Your task to perform on an android device: set the timer Image 0: 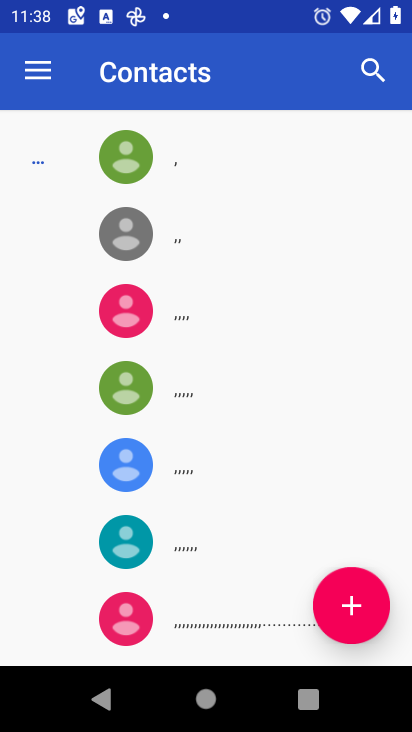
Step 0: press home button
Your task to perform on an android device: set the timer Image 1: 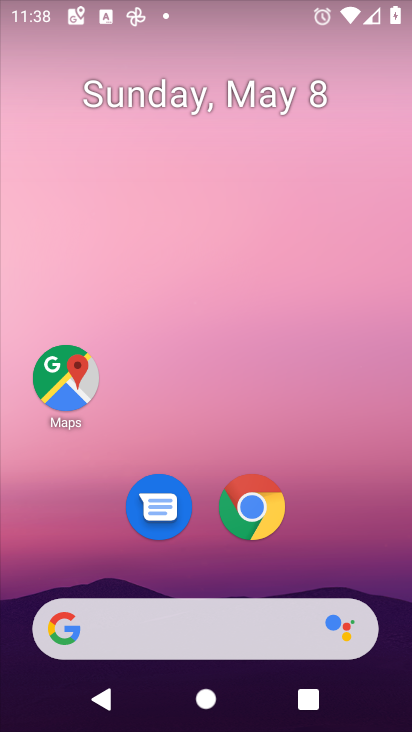
Step 1: drag from (257, 675) to (356, 4)
Your task to perform on an android device: set the timer Image 2: 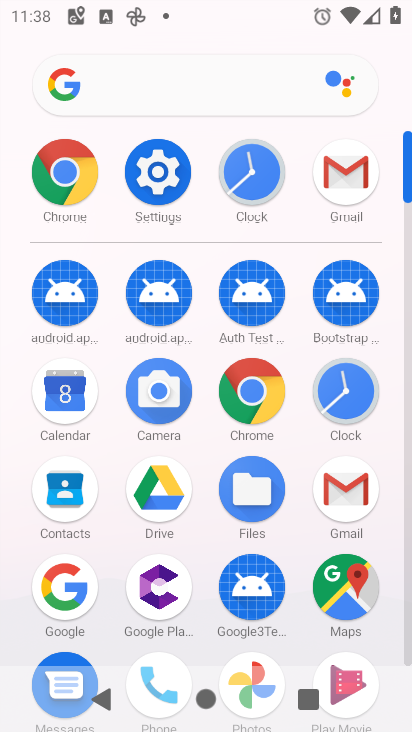
Step 2: click (351, 391)
Your task to perform on an android device: set the timer Image 3: 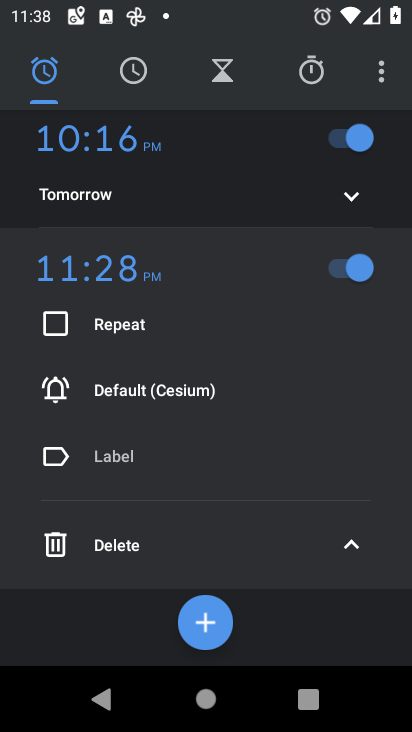
Step 3: click (213, 76)
Your task to perform on an android device: set the timer Image 4: 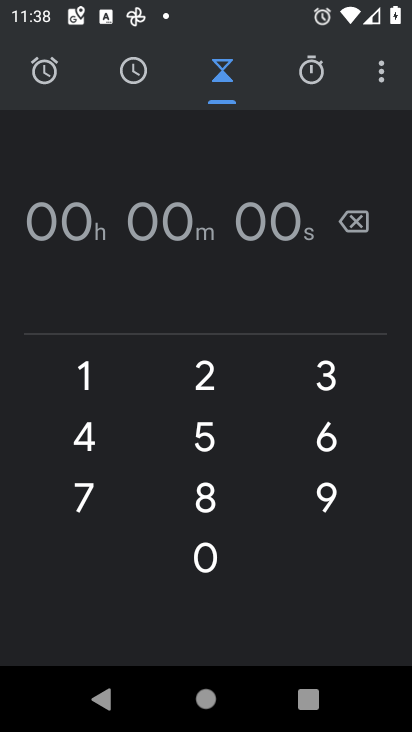
Step 4: click (208, 386)
Your task to perform on an android device: set the timer Image 5: 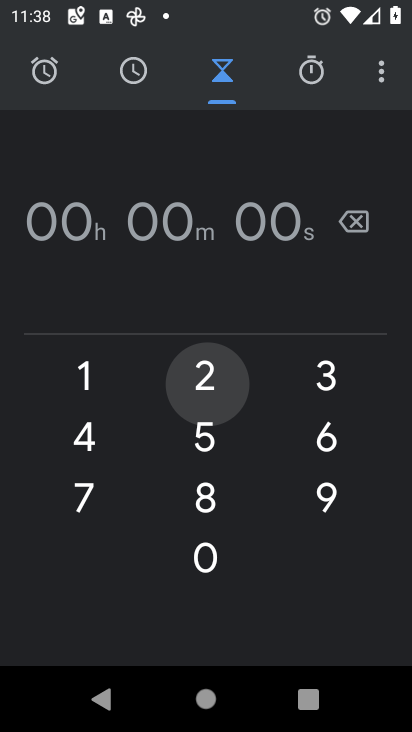
Step 5: click (308, 376)
Your task to perform on an android device: set the timer Image 6: 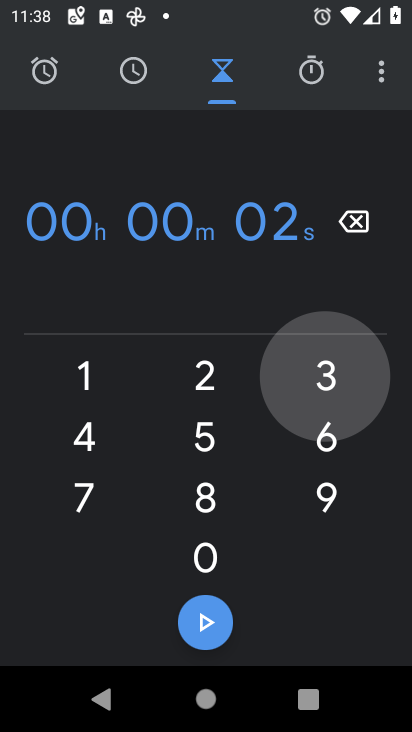
Step 6: click (322, 472)
Your task to perform on an android device: set the timer Image 7: 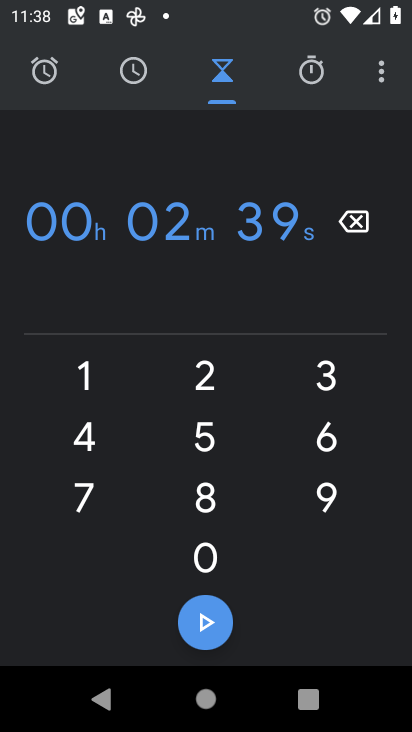
Step 7: task complete